Your task to perform on an android device: Open calendar and show me the fourth week of next month Image 0: 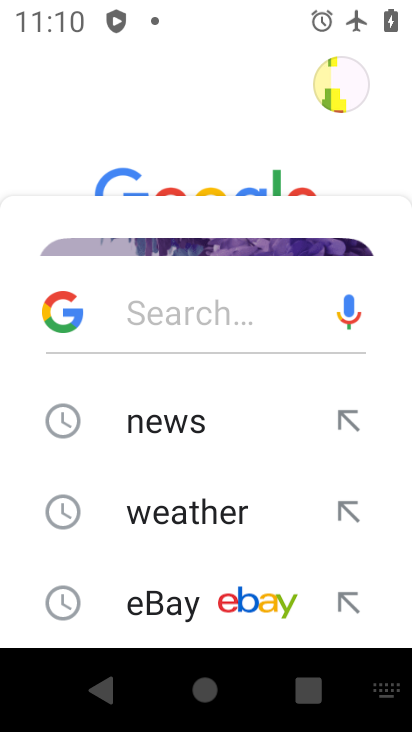
Step 0: press home button
Your task to perform on an android device: Open calendar and show me the fourth week of next month Image 1: 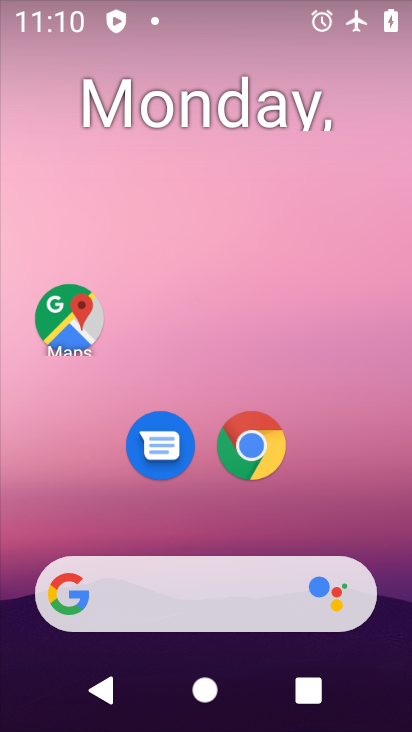
Step 1: drag from (277, 507) to (267, 117)
Your task to perform on an android device: Open calendar and show me the fourth week of next month Image 2: 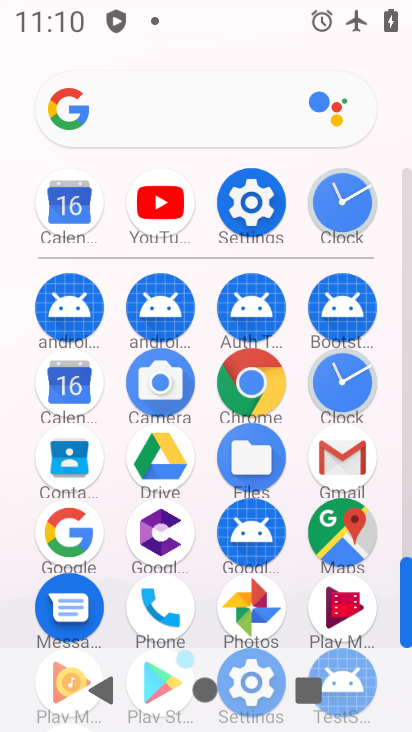
Step 2: click (85, 220)
Your task to perform on an android device: Open calendar and show me the fourth week of next month Image 3: 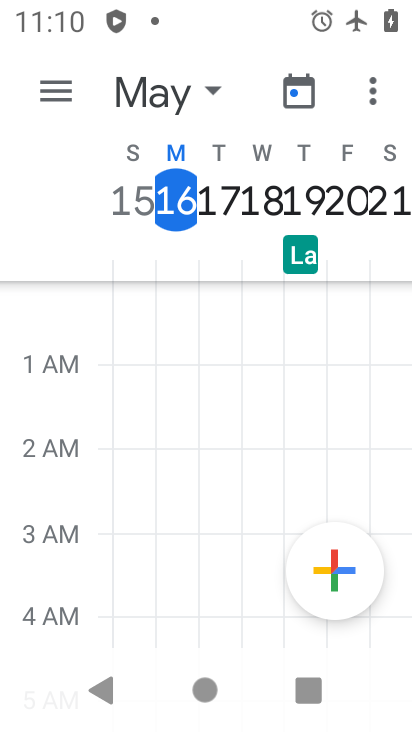
Step 3: click (196, 106)
Your task to perform on an android device: Open calendar and show me the fourth week of next month Image 4: 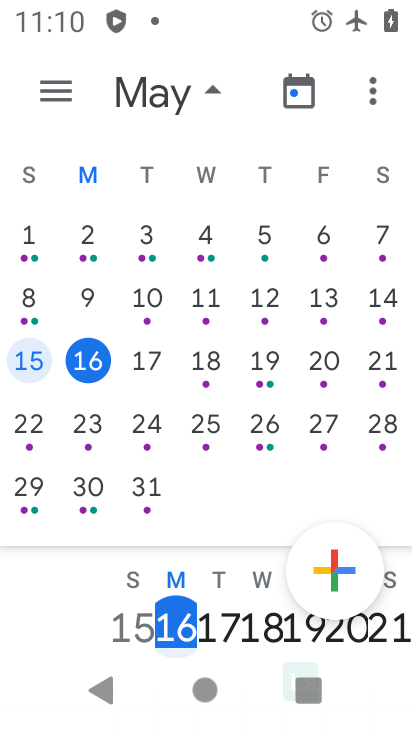
Step 4: drag from (352, 349) to (10, 348)
Your task to perform on an android device: Open calendar and show me the fourth week of next month Image 5: 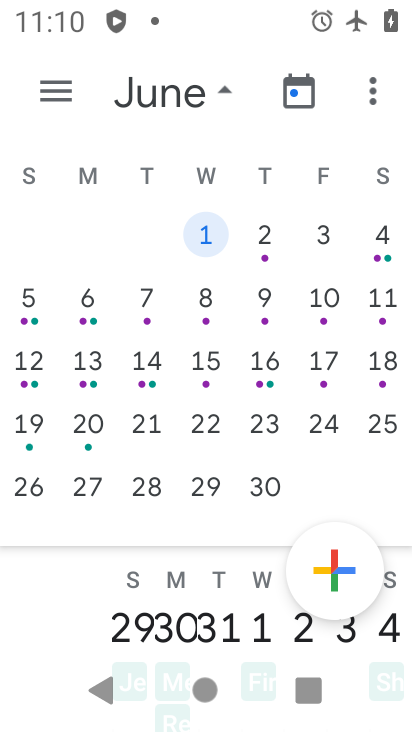
Step 5: click (36, 430)
Your task to perform on an android device: Open calendar and show me the fourth week of next month Image 6: 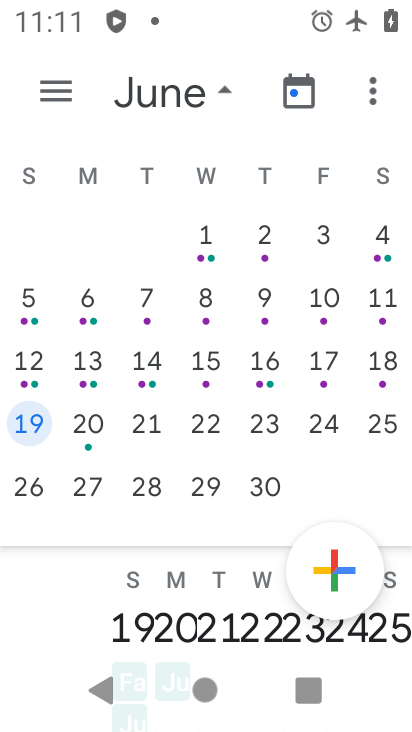
Step 6: click (59, 81)
Your task to perform on an android device: Open calendar and show me the fourth week of next month Image 7: 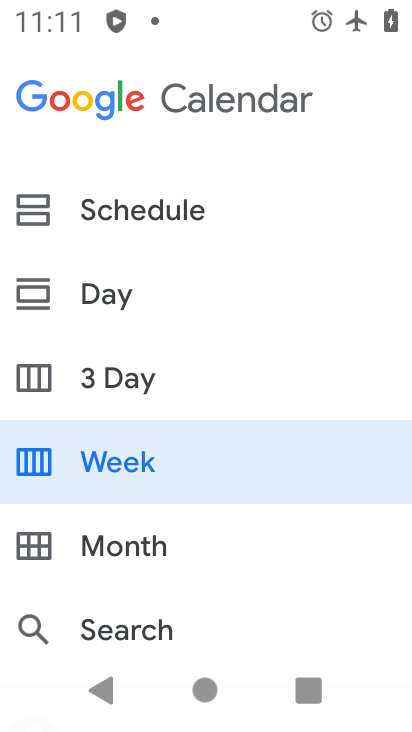
Step 7: click (59, 81)
Your task to perform on an android device: Open calendar and show me the fourth week of next month Image 8: 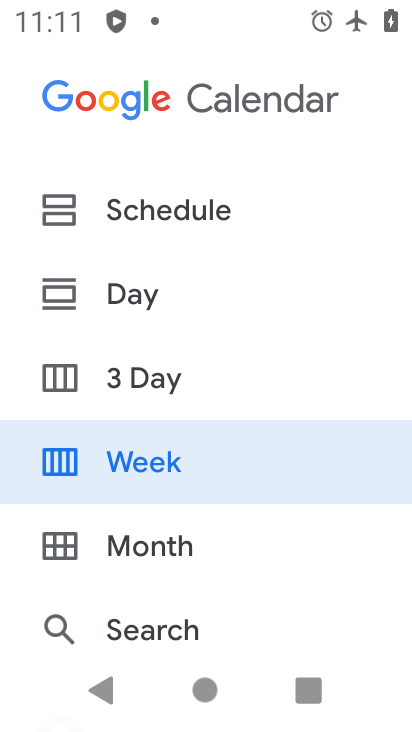
Step 8: click (115, 463)
Your task to perform on an android device: Open calendar and show me the fourth week of next month Image 9: 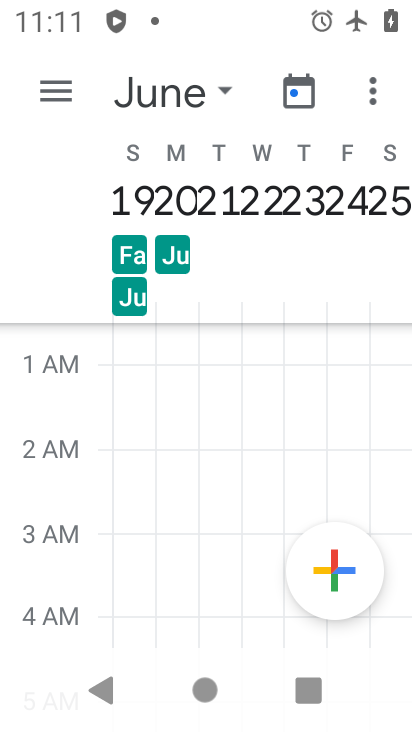
Step 9: task complete